Your task to perform on an android device: toggle priority inbox in the gmail app Image 0: 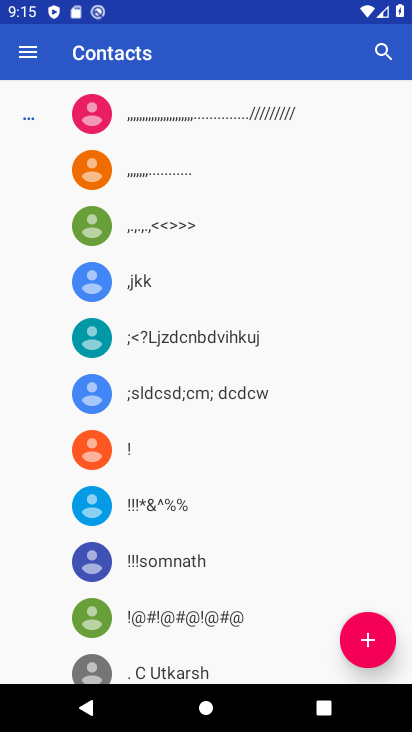
Step 0: press home button
Your task to perform on an android device: toggle priority inbox in the gmail app Image 1: 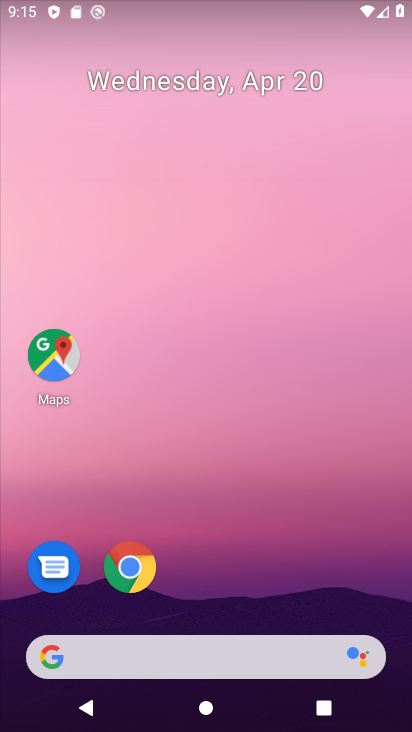
Step 1: drag from (318, 543) to (344, 211)
Your task to perform on an android device: toggle priority inbox in the gmail app Image 2: 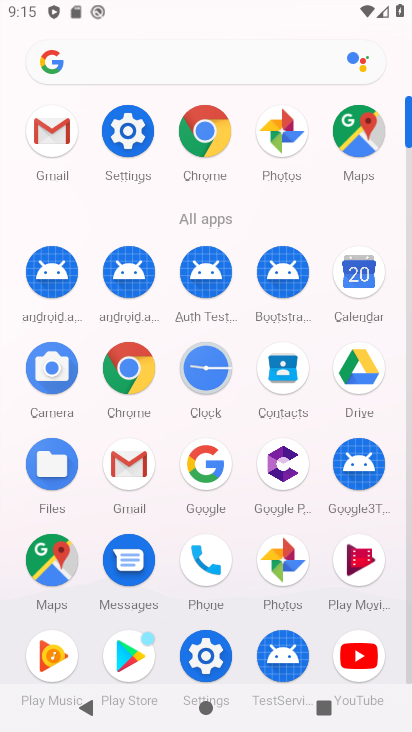
Step 2: click (131, 480)
Your task to perform on an android device: toggle priority inbox in the gmail app Image 3: 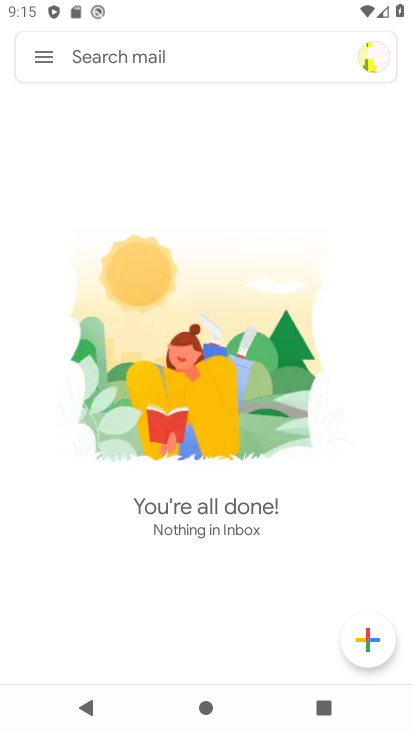
Step 3: click (44, 59)
Your task to perform on an android device: toggle priority inbox in the gmail app Image 4: 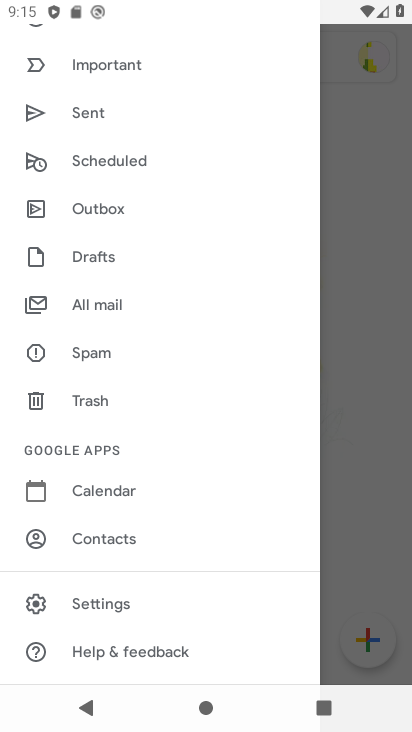
Step 4: drag from (262, 291) to (259, 449)
Your task to perform on an android device: toggle priority inbox in the gmail app Image 5: 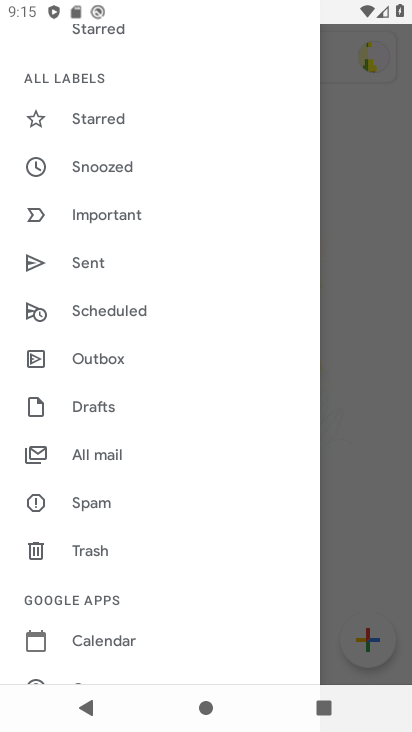
Step 5: drag from (262, 232) to (256, 437)
Your task to perform on an android device: toggle priority inbox in the gmail app Image 6: 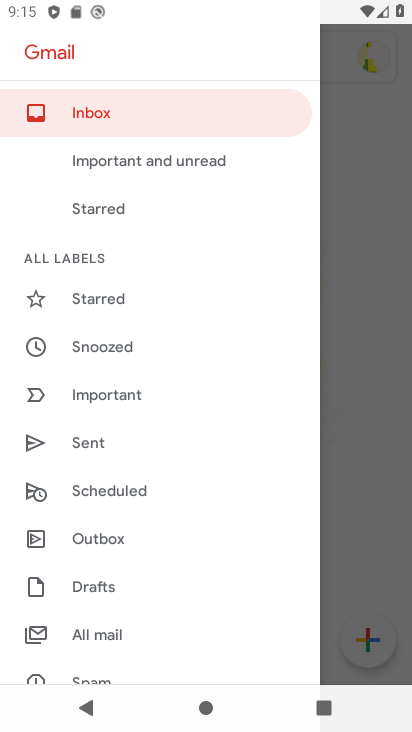
Step 6: drag from (254, 484) to (264, 351)
Your task to perform on an android device: toggle priority inbox in the gmail app Image 7: 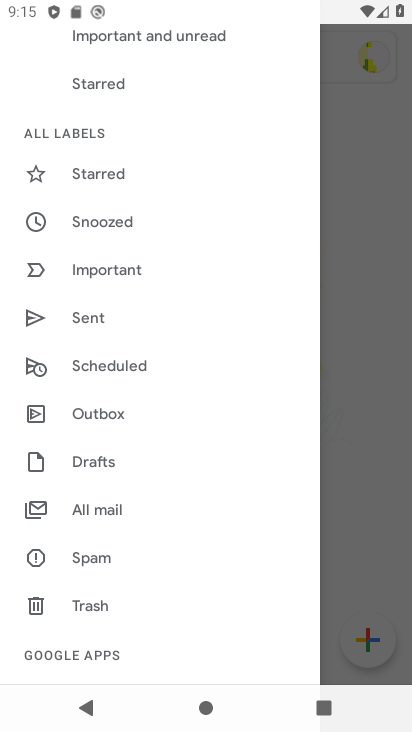
Step 7: drag from (253, 541) to (270, 364)
Your task to perform on an android device: toggle priority inbox in the gmail app Image 8: 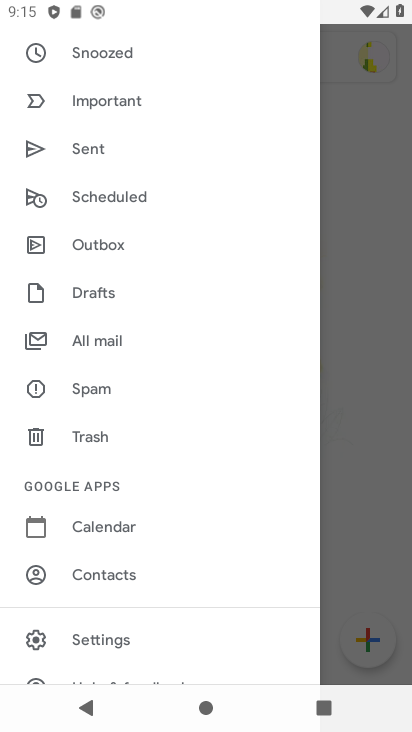
Step 8: drag from (250, 579) to (261, 421)
Your task to perform on an android device: toggle priority inbox in the gmail app Image 9: 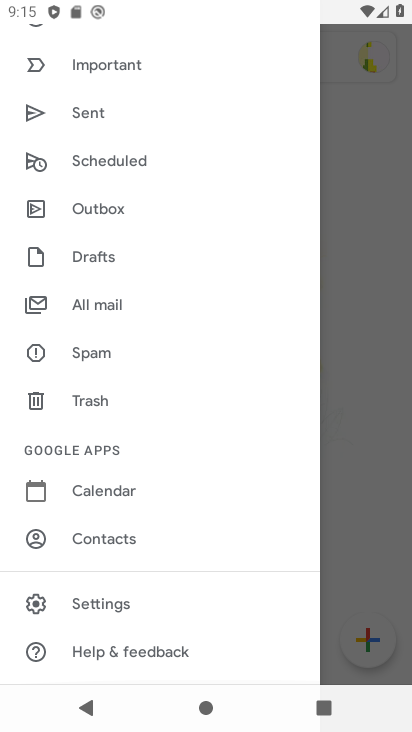
Step 9: click (164, 601)
Your task to perform on an android device: toggle priority inbox in the gmail app Image 10: 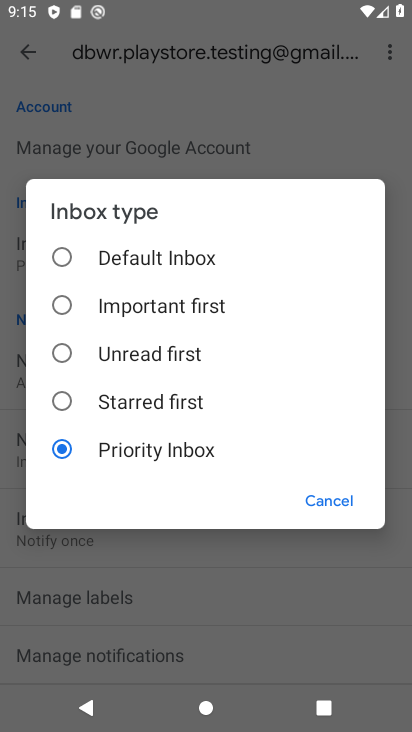
Step 10: task complete